Your task to perform on an android device: move a message to another label in the gmail app Image 0: 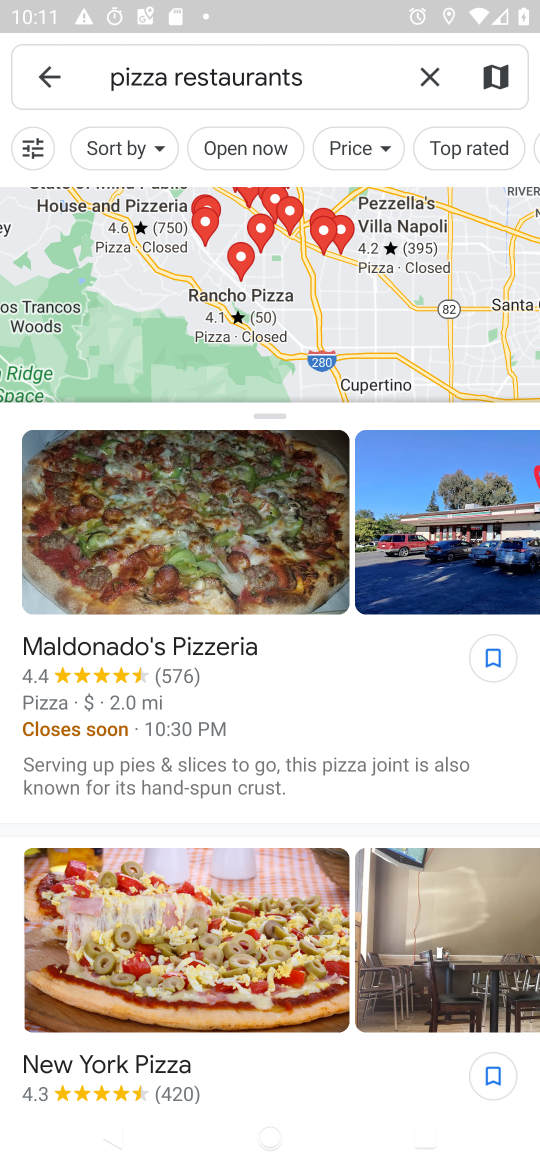
Step 0: press home button
Your task to perform on an android device: move a message to another label in the gmail app Image 1: 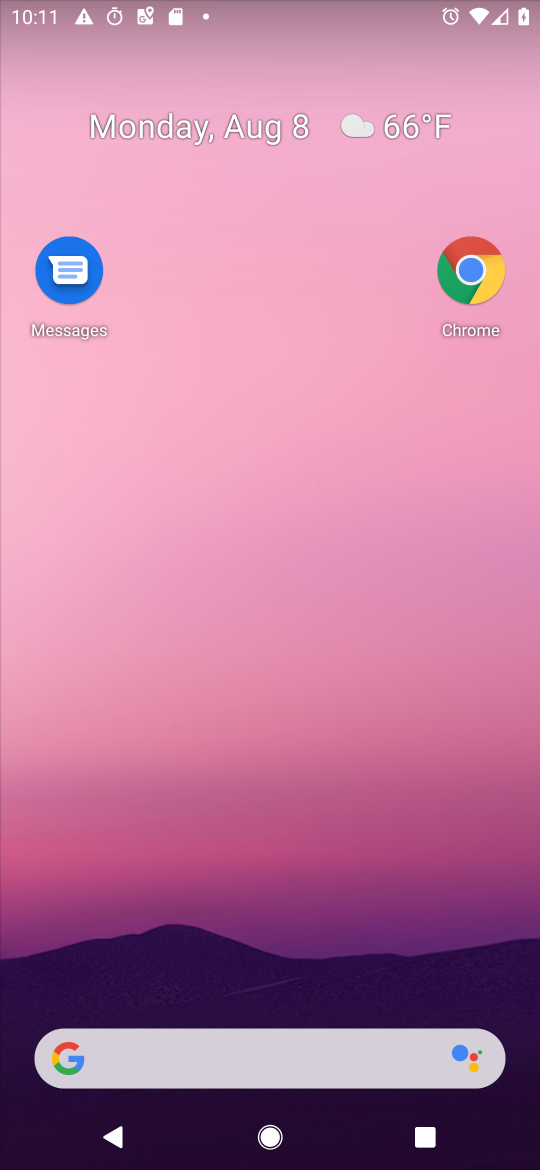
Step 1: drag from (238, 956) to (139, 257)
Your task to perform on an android device: move a message to another label in the gmail app Image 2: 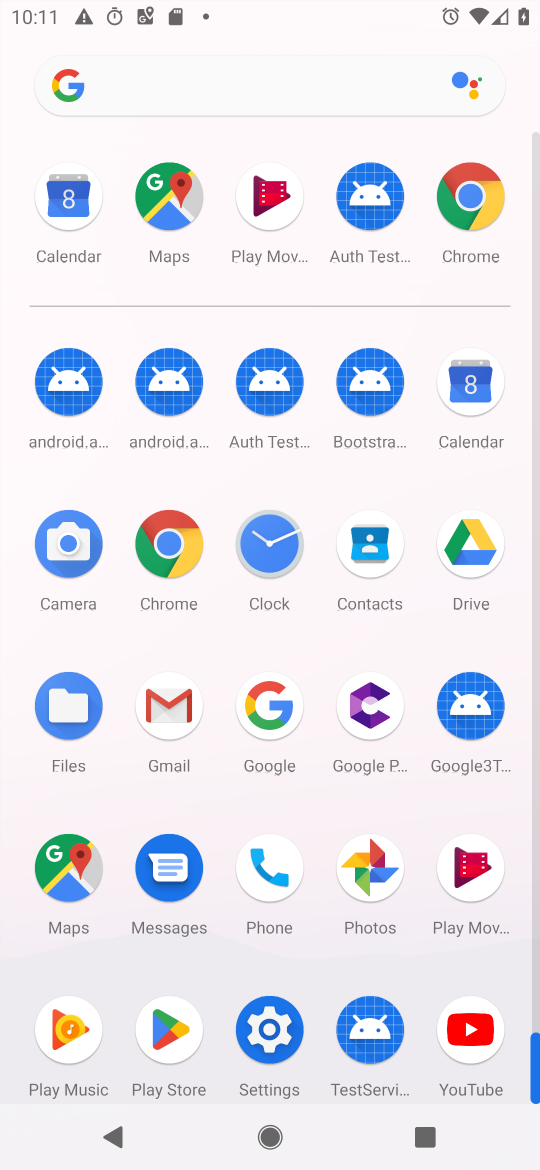
Step 2: click (158, 700)
Your task to perform on an android device: move a message to another label in the gmail app Image 3: 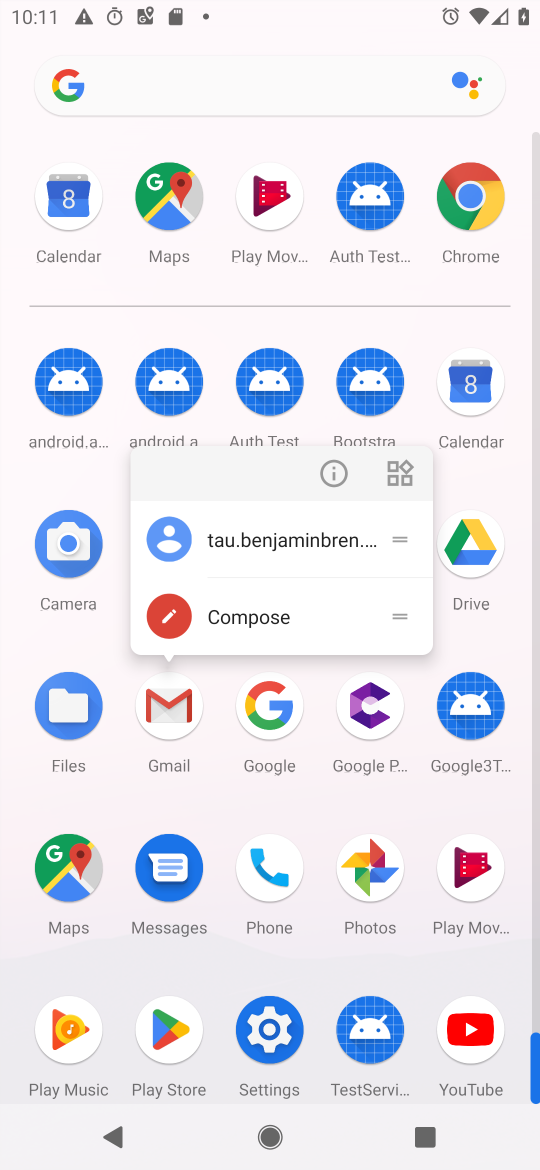
Step 3: click (332, 477)
Your task to perform on an android device: move a message to another label in the gmail app Image 4: 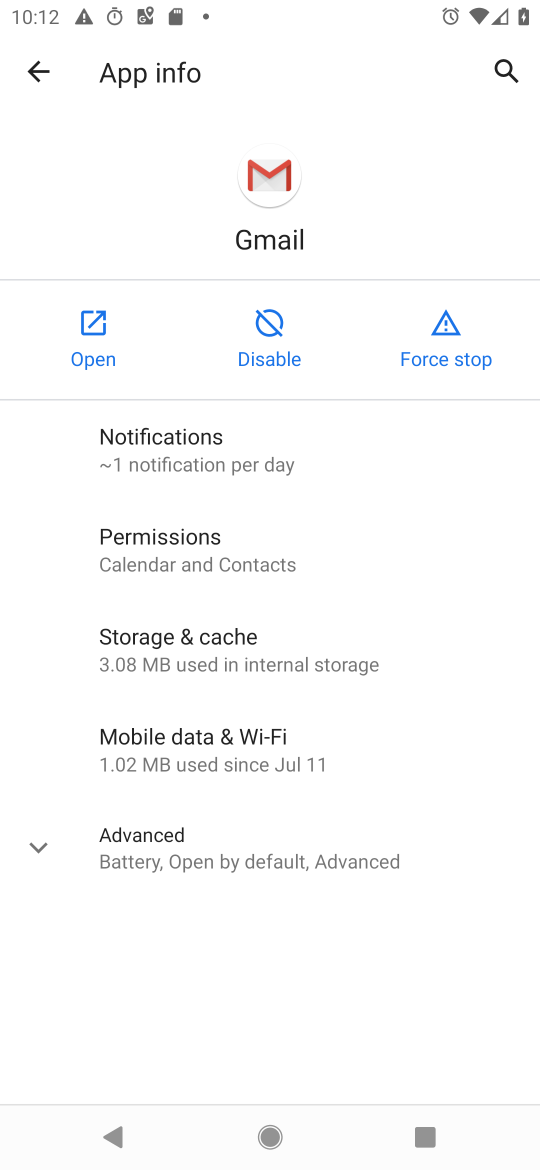
Step 4: click (111, 329)
Your task to perform on an android device: move a message to another label in the gmail app Image 5: 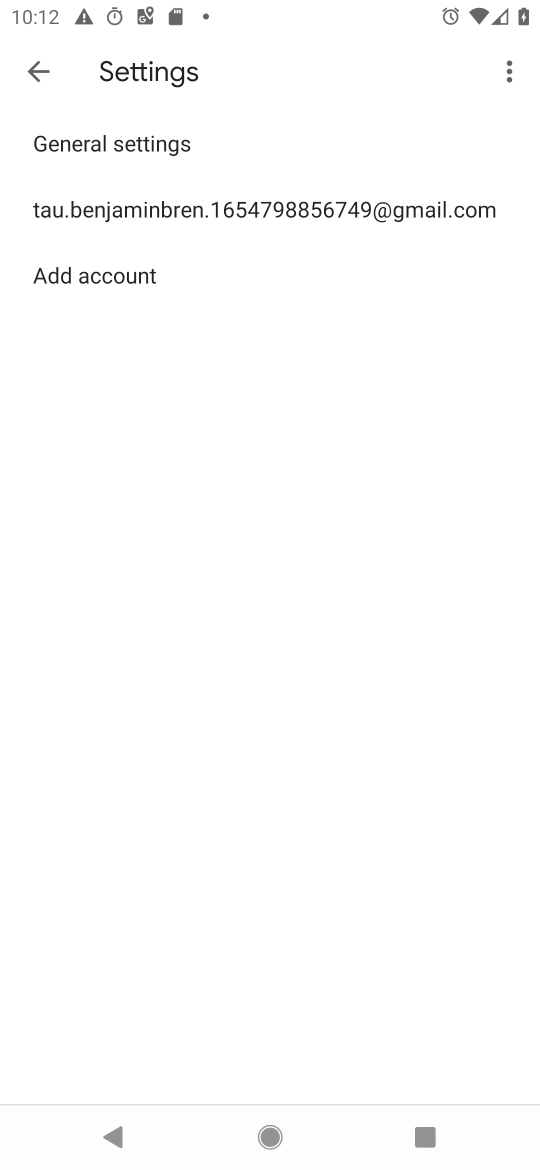
Step 5: click (28, 84)
Your task to perform on an android device: move a message to another label in the gmail app Image 6: 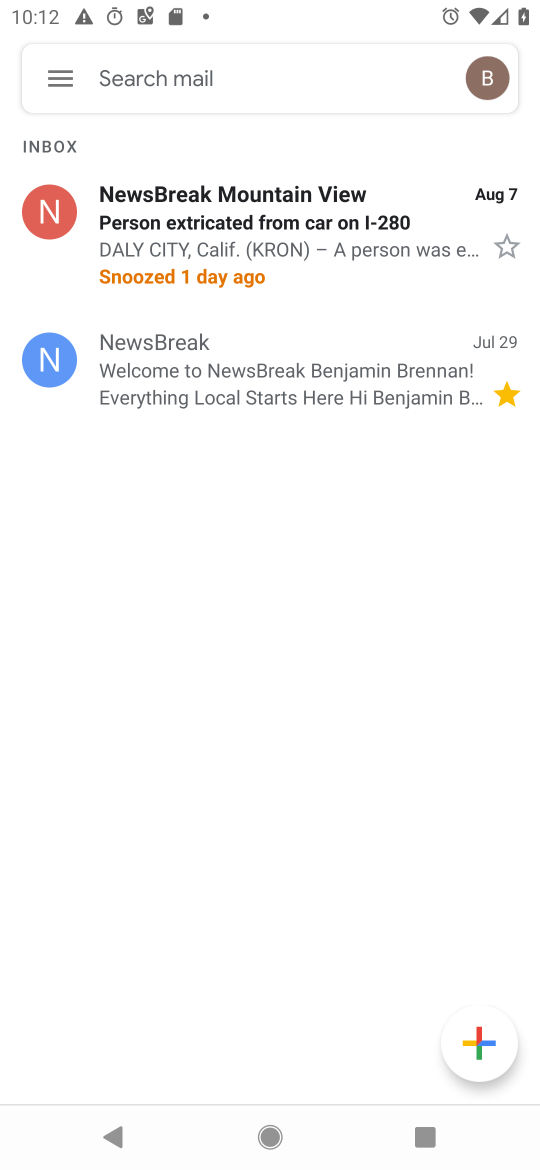
Step 6: click (62, 77)
Your task to perform on an android device: move a message to another label in the gmail app Image 7: 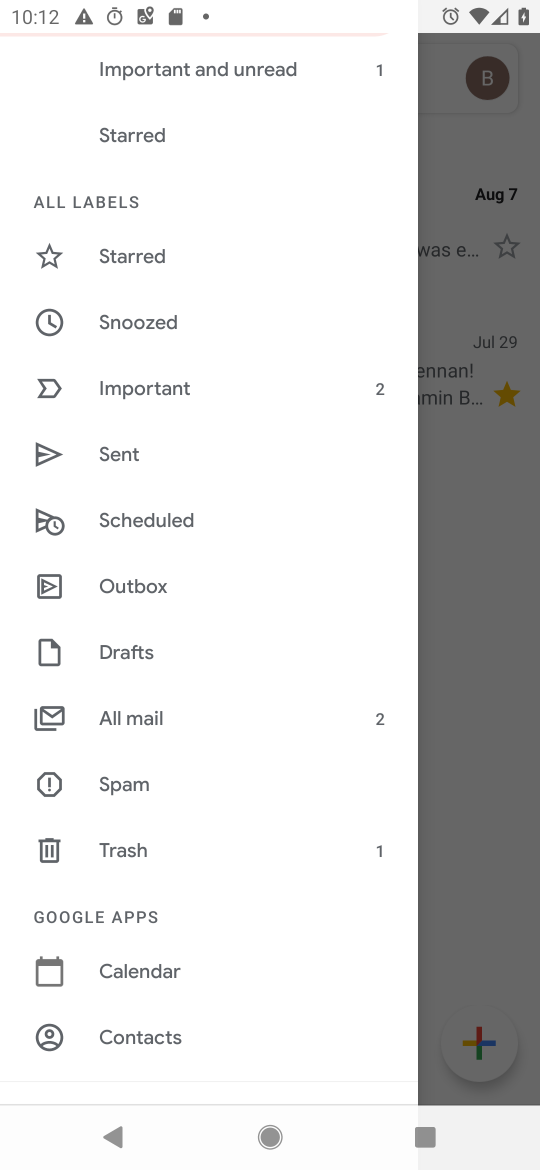
Step 7: drag from (143, 221) to (377, 1031)
Your task to perform on an android device: move a message to another label in the gmail app Image 8: 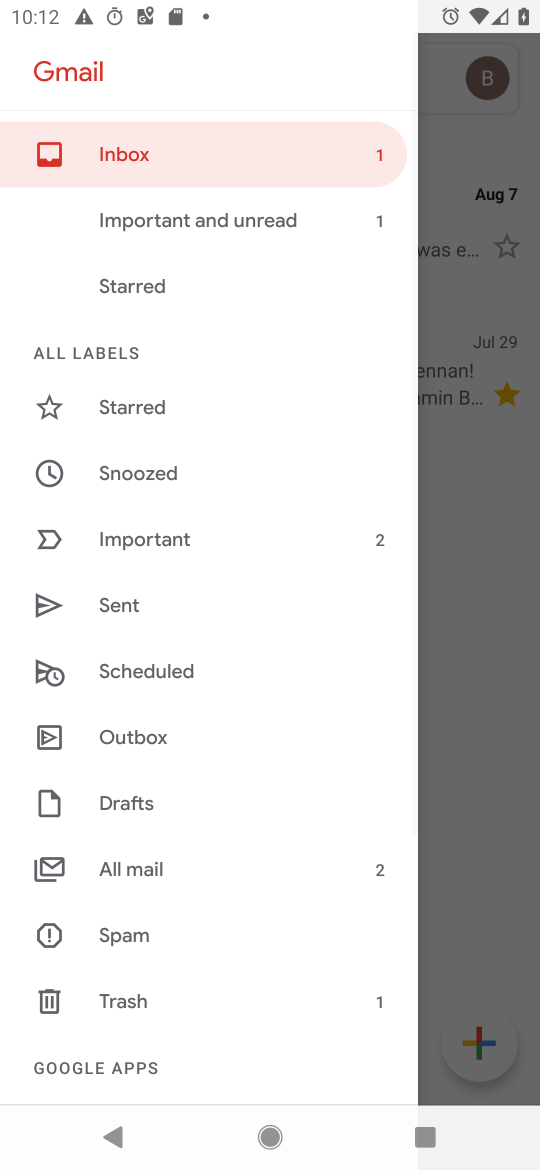
Step 8: click (120, 177)
Your task to perform on an android device: move a message to another label in the gmail app Image 9: 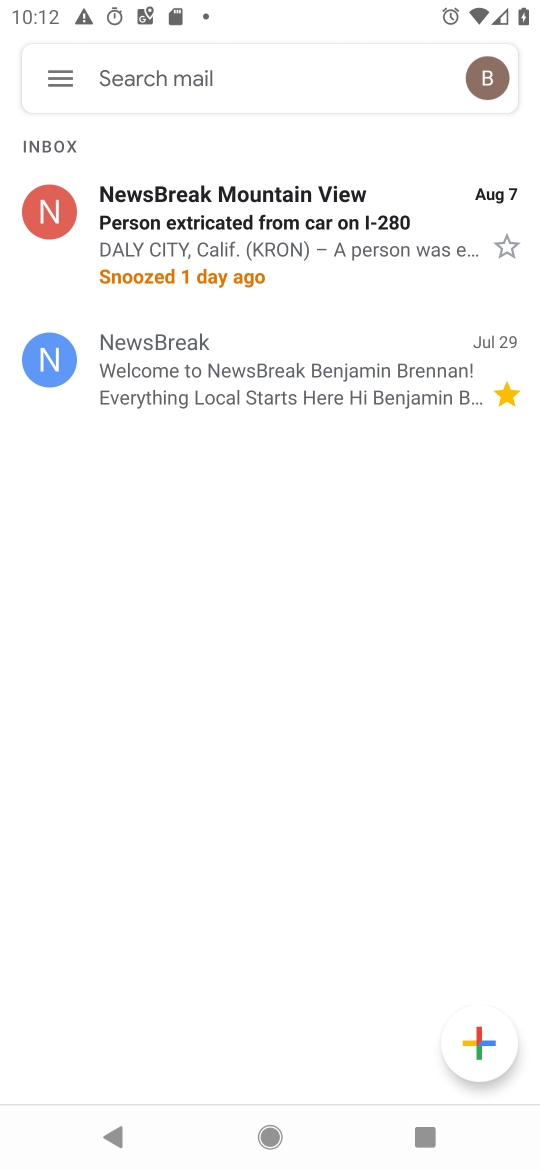
Step 9: task complete